Your task to perform on an android device: Open Chrome and go to settings Image 0: 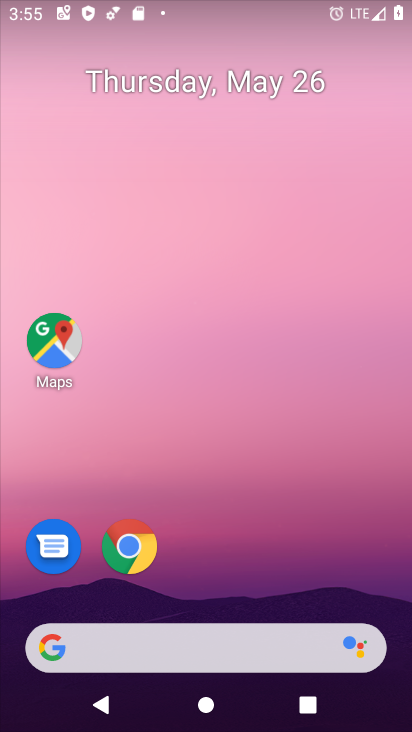
Step 0: click (134, 551)
Your task to perform on an android device: Open Chrome and go to settings Image 1: 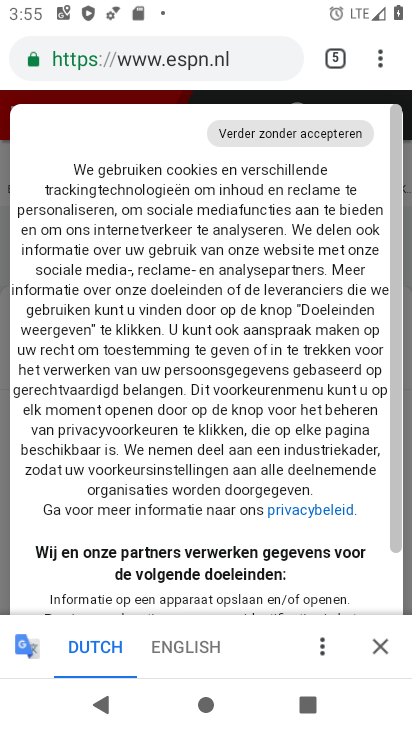
Step 1: task complete